Your task to perform on an android device: open sync settings in chrome Image 0: 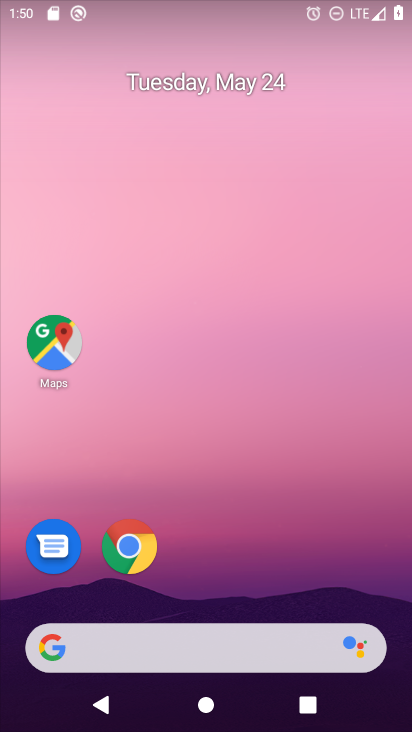
Step 0: drag from (238, 616) to (341, 34)
Your task to perform on an android device: open sync settings in chrome Image 1: 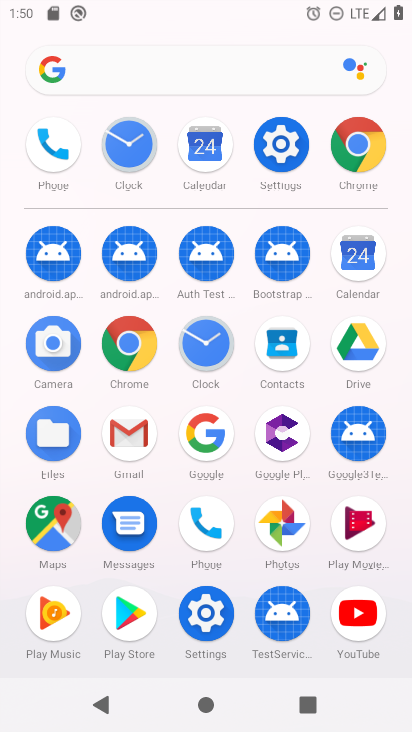
Step 1: click (119, 358)
Your task to perform on an android device: open sync settings in chrome Image 2: 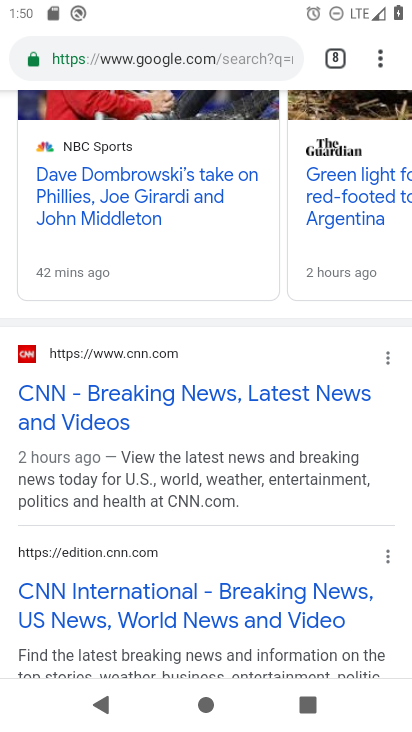
Step 2: click (387, 56)
Your task to perform on an android device: open sync settings in chrome Image 3: 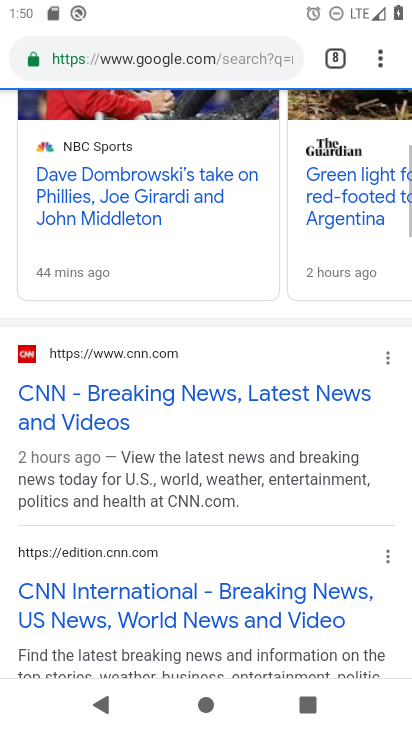
Step 3: drag from (381, 45) to (268, 558)
Your task to perform on an android device: open sync settings in chrome Image 4: 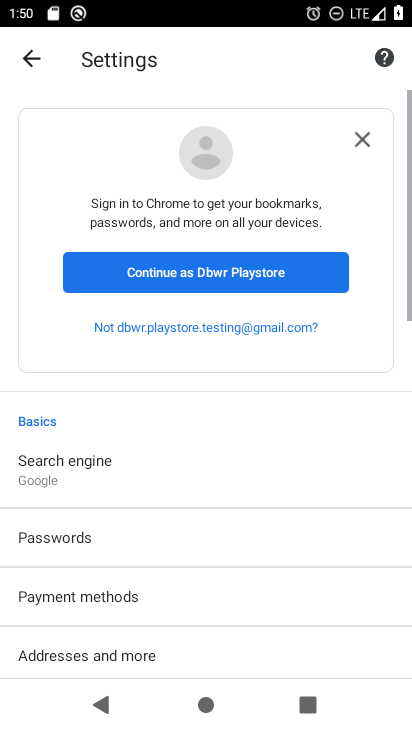
Step 4: drag from (151, 615) to (411, 113)
Your task to perform on an android device: open sync settings in chrome Image 5: 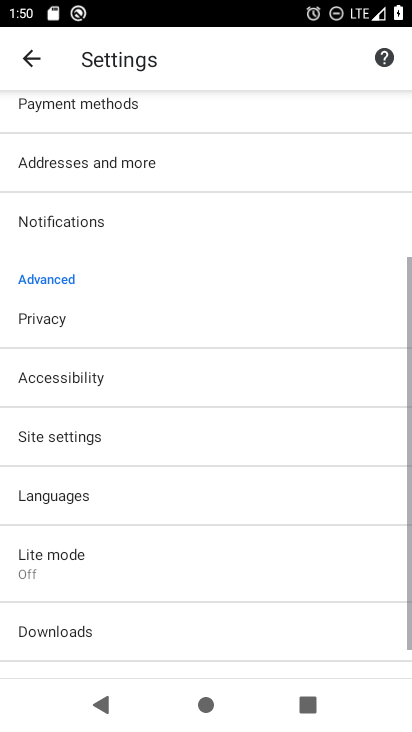
Step 5: click (215, 438)
Your task to perform on an android device: open sync settings in chrome Image 6: 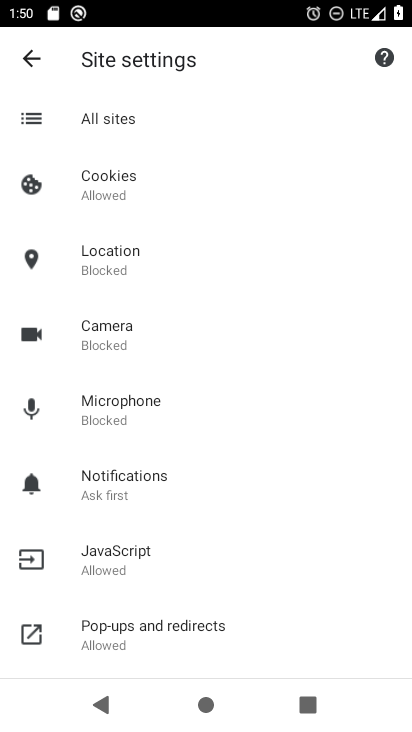
Step 6: drag from (140, 521) to (141, 259)
Your task to perform on an android device: open sync settings in chrome Image 7: 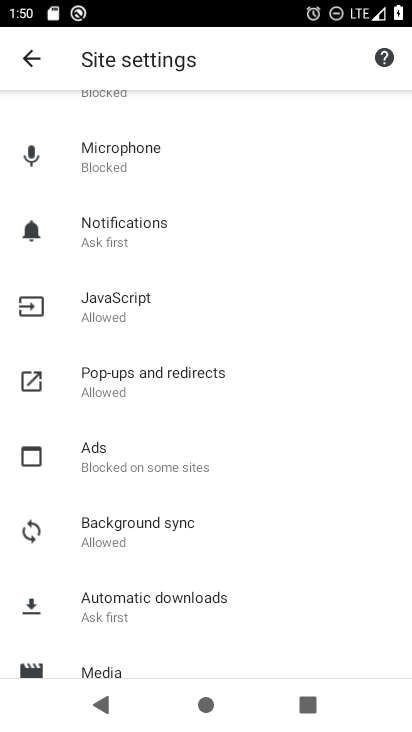
Step 7: click (55, 533)
Your task to perform on an android device: open sync settings in chrome Image 8: 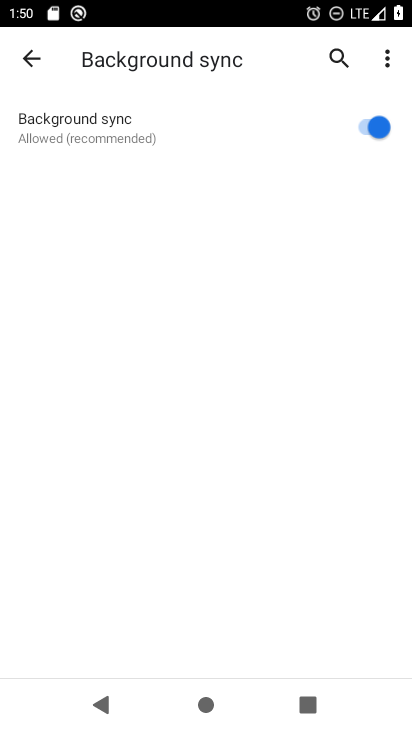
Step 8: task complete